Your task to perform on an android device: Open Reddit.com Image 0: 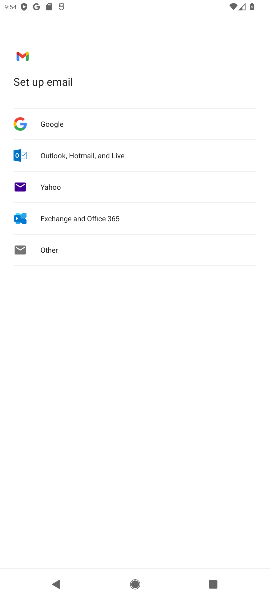
Step 0: press home button
Your task to perform on an android device: Open Reddit.com Image 1: 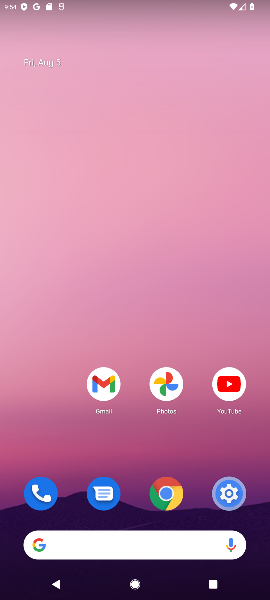
Step 1: drag from (136, 461) to (183, 35)
Your task to perform on an android device: Open Reddit.com Image 2: 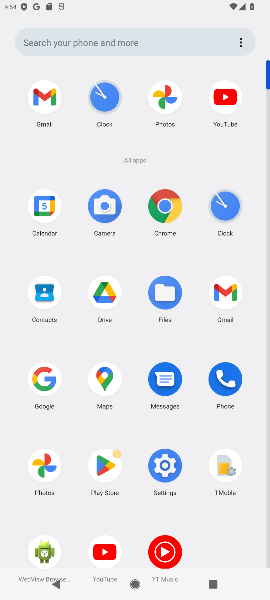
Step 2: click (163, 202)
Your task to perform on an android device: Open Reddit.com Image 3: 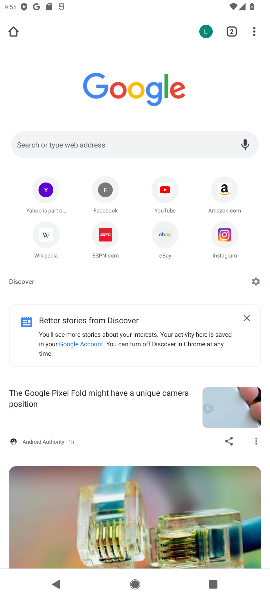
Step 3: click (97, 136)
Your task to perform on an android device: Open Reddit.com Image 4: 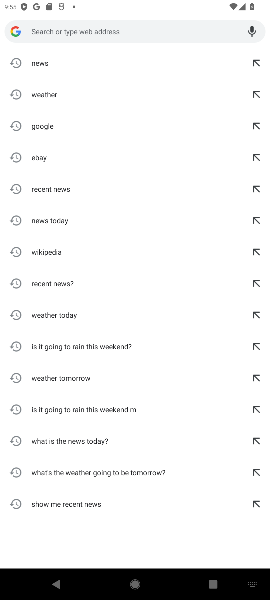
Step 4: type "reddit.com"
Your task to perform on an android device: Open Reddit.com Image 5: 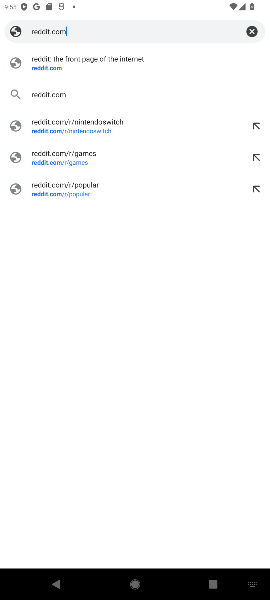
Step 5: click (76, 67)
Your task to perform on an android device: Open Reddit.com Image 6: 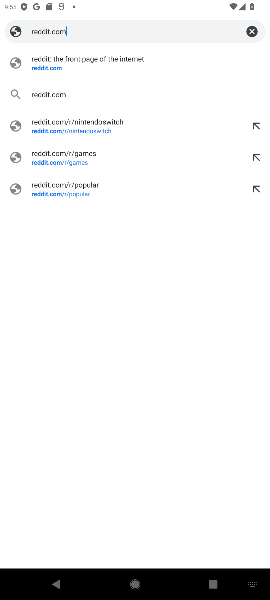
Step 6: click (67, 62)
Your task to perform on an android device: Open Reddit.com Image 7: 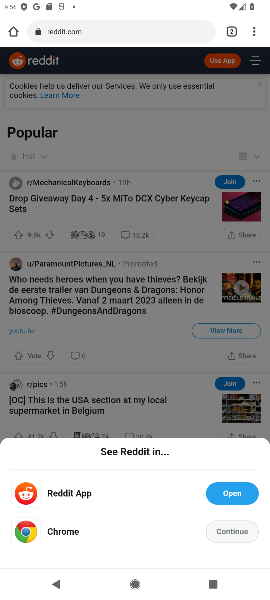
Step 7: click (227, 530)
Your task to perform on an android device: Open Reddit.com Image 8: 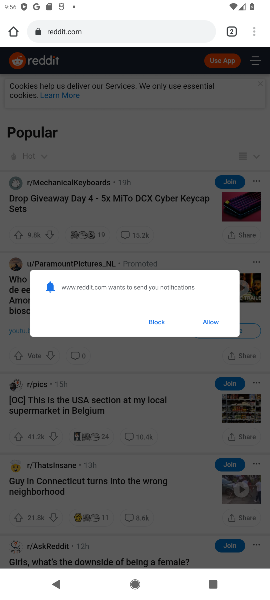
Step 8: click (208, 322)
Your task to perform on an android device: Open Reddit.com Image 9: 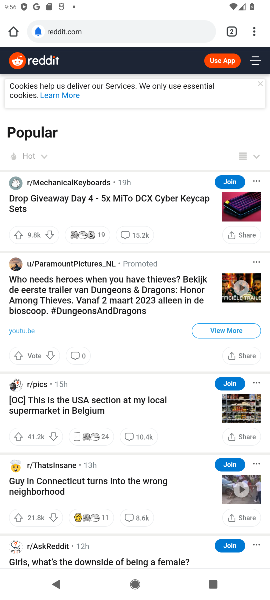
Step 9: task complete